Your task to perform on an android device: Go to eBay Image 0: 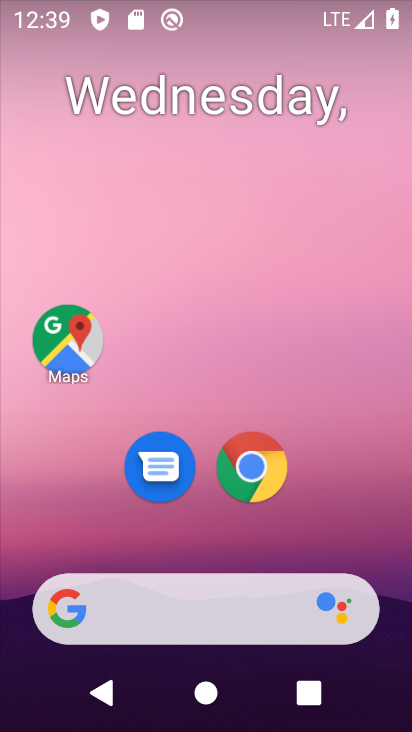
Step 0: drag from (373, 549) to (360, 156)
Your task to perform on an android device: Go to eBay Image 1: 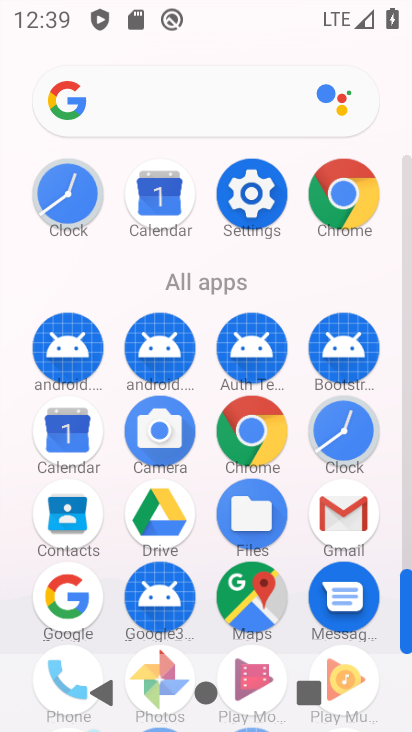
Step 1: click (268, 440)
Your task to perform on an android device: Go to eBay Image 2: 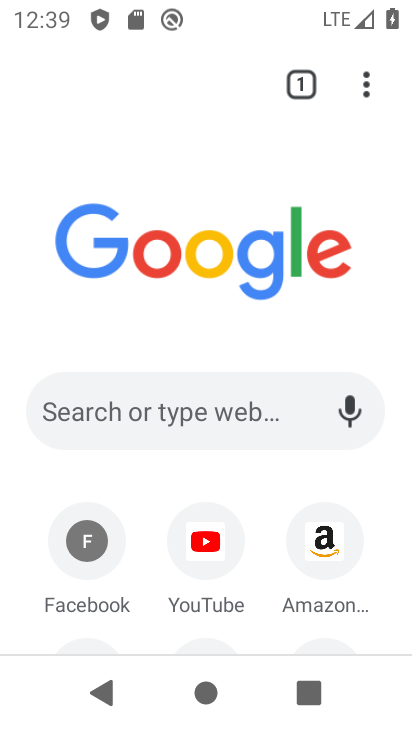
Step 2: click (189, 416)
Your task to perform on an android device: Go to eBay Image 3: 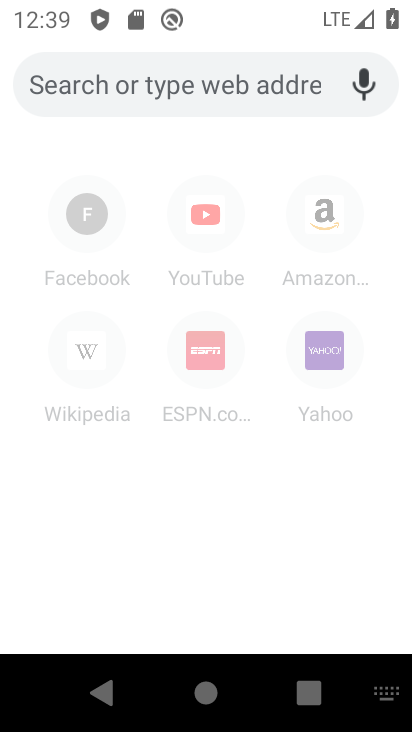
Step 3: type "ebay"
Your task to perform on an android device: Go to eBay Image 4: 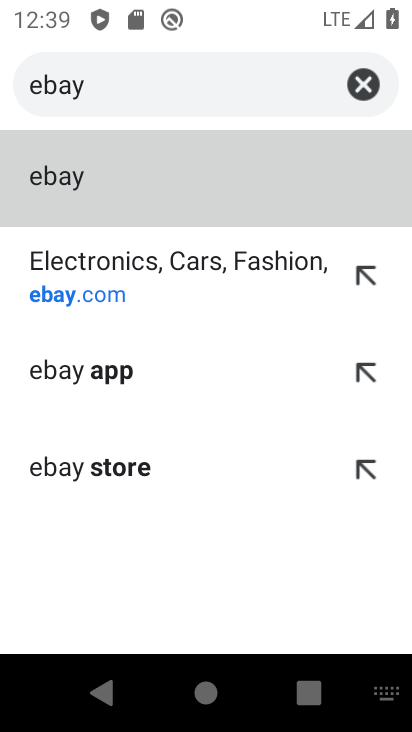
Step 4: click (136, 274)
Your task to perform on an android device: Go to eBay Image 5: 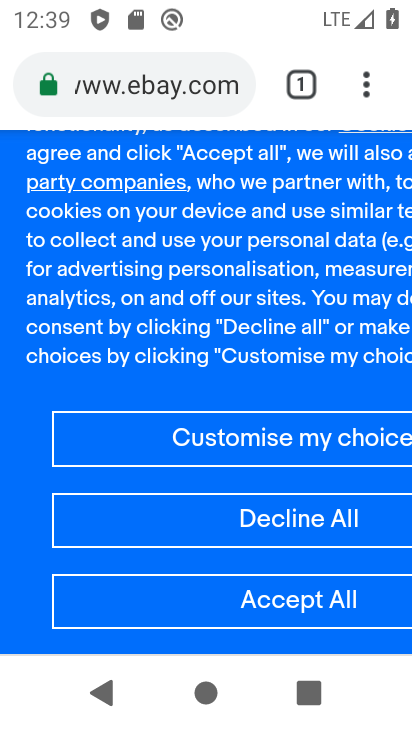
Step 5: task complete